Your task to perform on an android device: open app "Viber Messenger" Image 0: 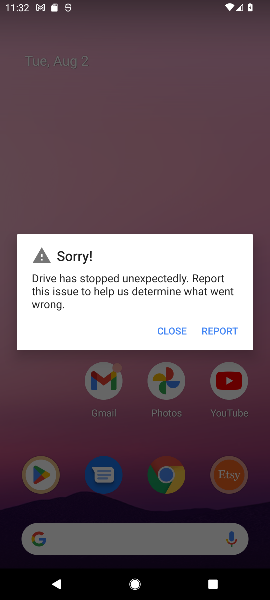
Step 0: click (170, 331)
Your task to perform on an android device: open app "Viber Messenger" Image 1: 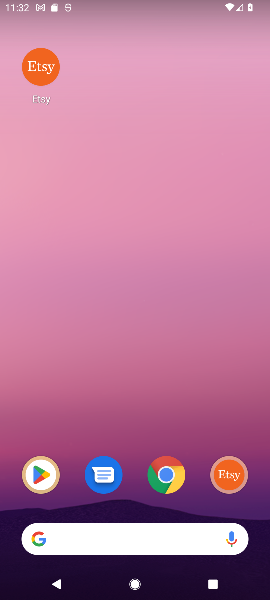
Step 1: click (42, 471)
Your task to perform on an android device: open app "Viber Messenger" Image 2: 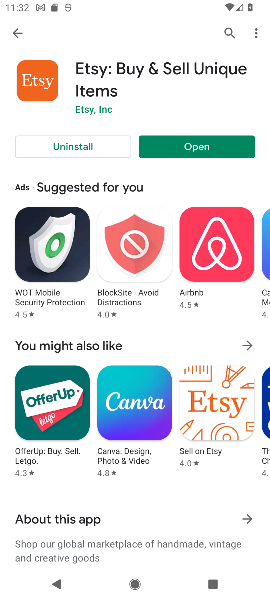
Step 2: click (230, 30)
Your task to perform on an android device: open app "Viber Messenger" Image 3: 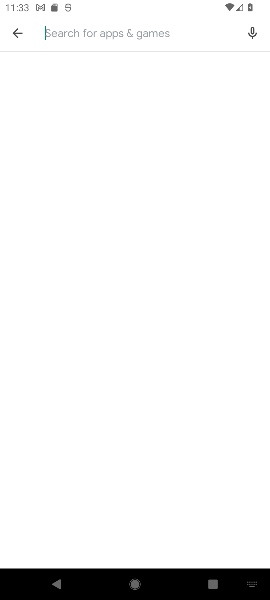
Step 3: type "Viber Messenger"
Your task to perform on an android device: open app "Viber Messenger" Image 4: 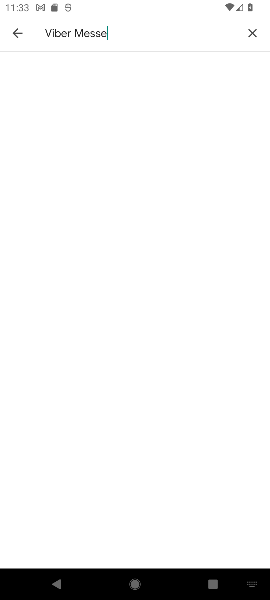
Step 4: type ""
Your task to perform on an android device: open app "Viber Messenger" Image 5: 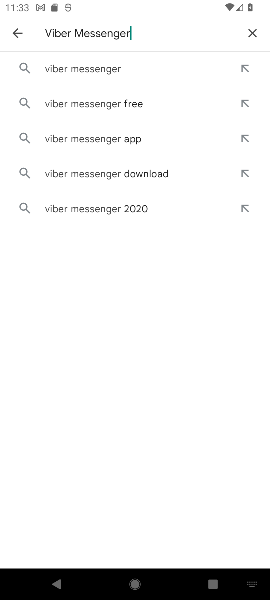
Step 5: click (93, 74)
Your task to perform on an android device: open app "Viber Messenger" Image 6: 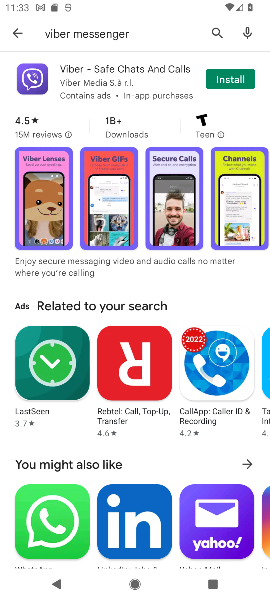
Step 6: task complete